Your task to perform on an android device: Open notification settings Image 0: 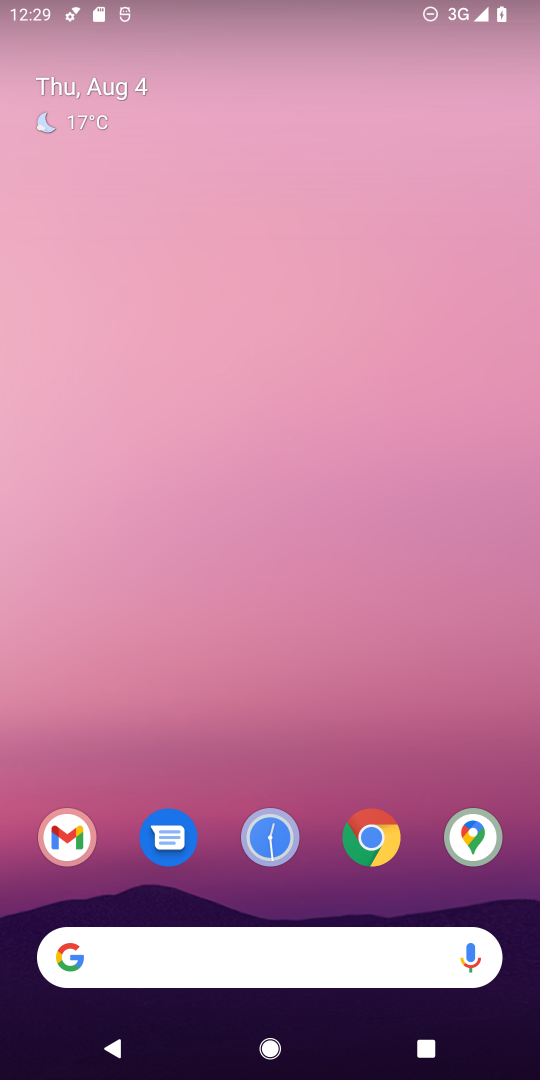
Step 0: drag from (519, 855) to (311, 40)
Your task to perform on an android device: Open notification settings Image 1: 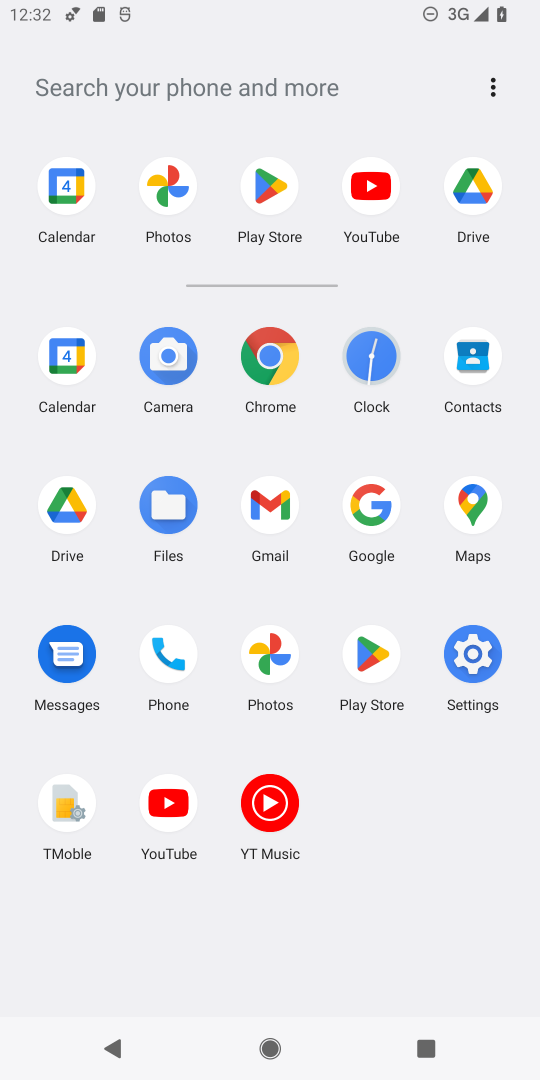
Step 1: click (479, 653)
Your task to perform on an android device: Open notification settings Image 2: 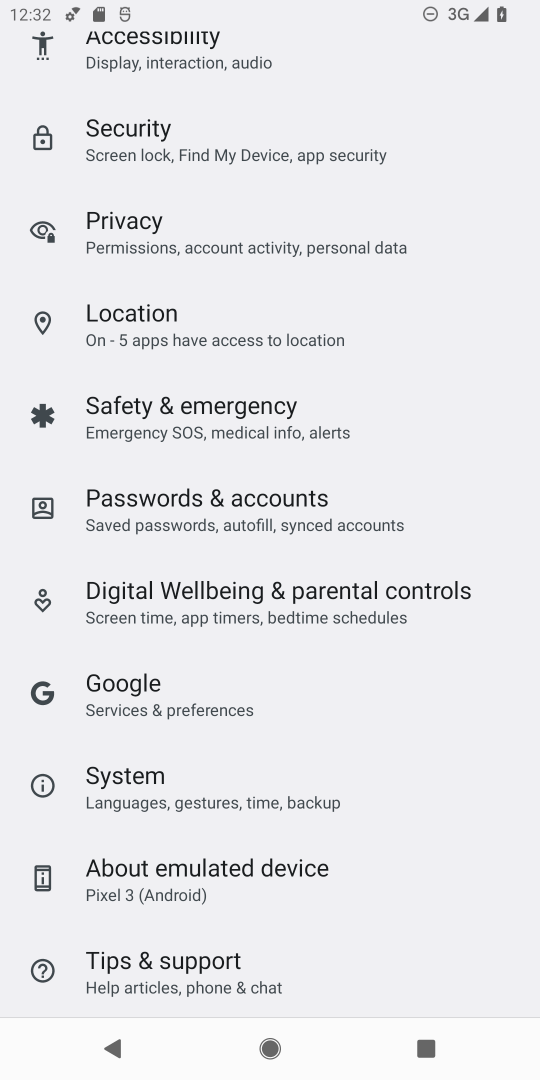
Step 2: drag from (184, 167) to (264, 1069)
Your task to perform on an android device: Open notification settings Image 3: 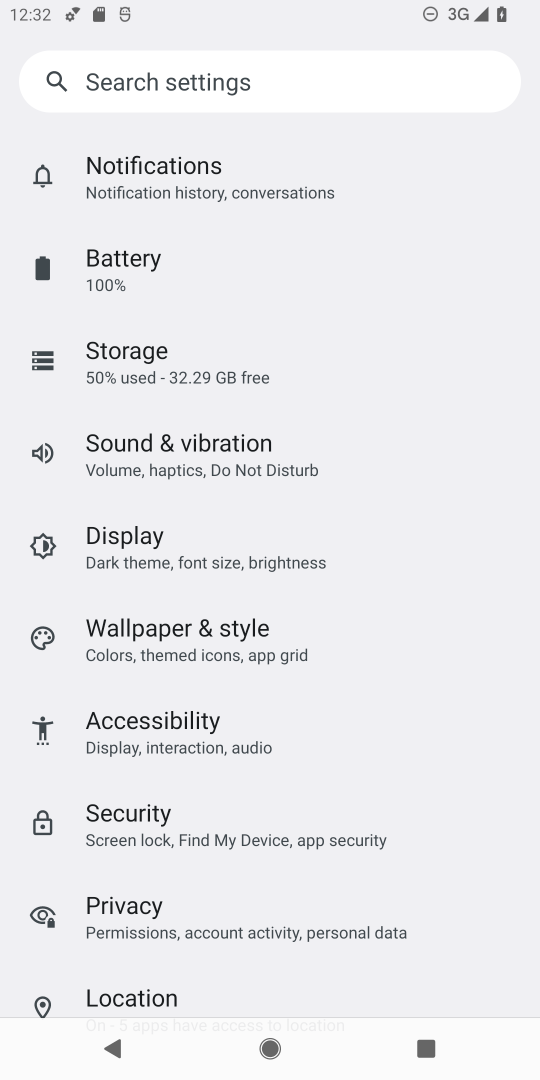
Step 3: click (180, 194)
Your task to perform on an android device: Open notification settings Image 4: 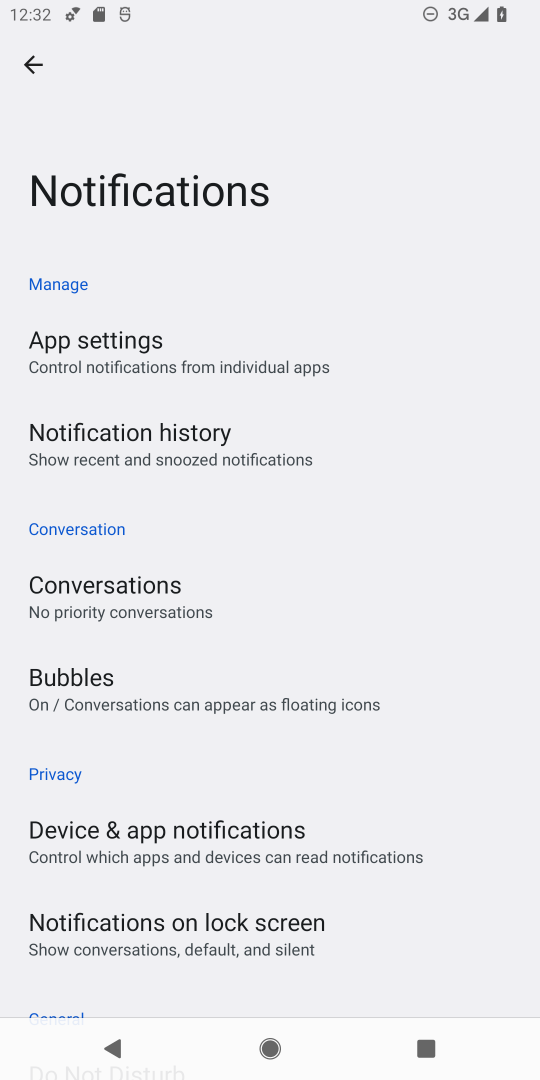
Step 4: task complete